Your task to perform on an android device: turn off airplane mode Image 0: 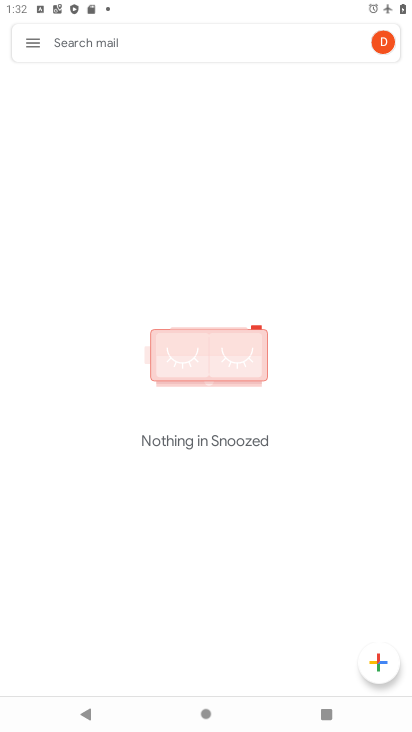
Step 0: press home button
Your task to perform on an android device: turn off airplane mode Image 1: 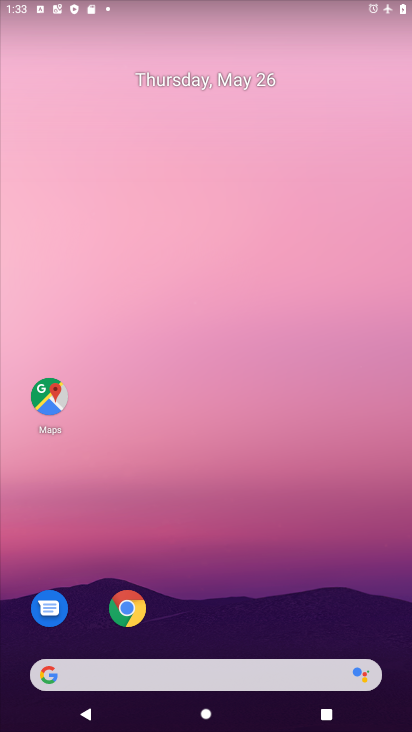
Step 1: drag from (369, 655) to (277, 43)
Your task to perform on an android device: turn off airplane mode Image 2: 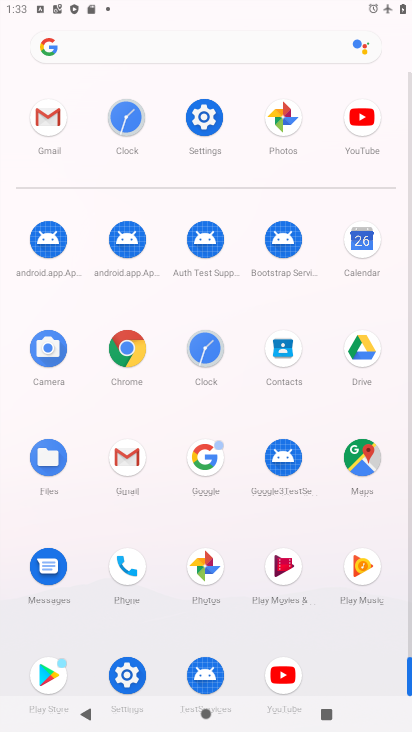
Step 2: click (123, 675)
Your task to perform on an android device: turn off airplane mode Image 3: 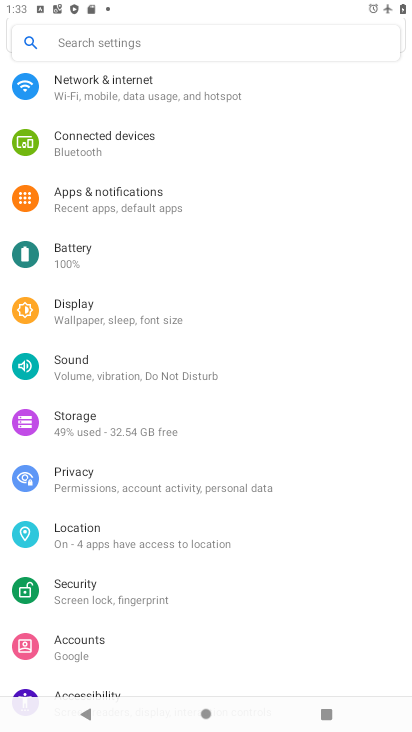
Step 3: click (106, 93)
Your task to perform on an android device: turn off airplane mode Image 4: 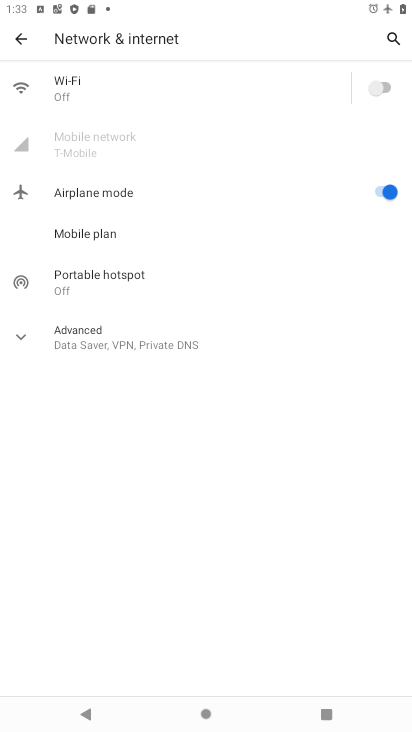
Step 4: click (381, 191)
Your task to perform on an android device: turn off airplane mode Image 5: 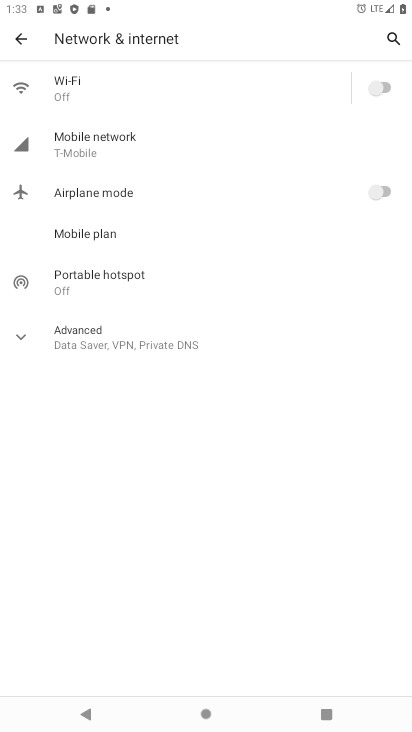
Step 5: task complete